Your task to perform on an android device: Go to Wikipedia Image 0: 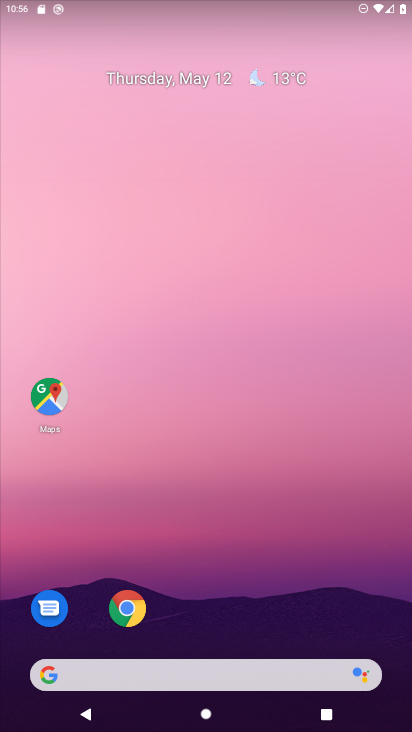
Step 0: click (138, 609)
Your task to perform on an android device: Go to Wikipedia Image 1: 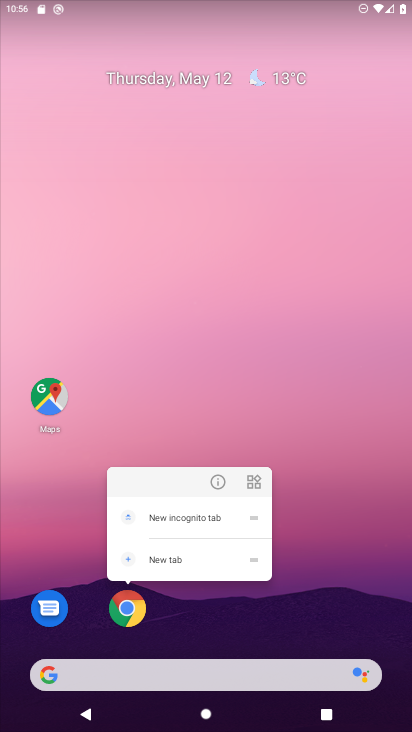
Step 1: click (133, 609)
Your task to perform on an android device: Go to Wikipedia Image 2: 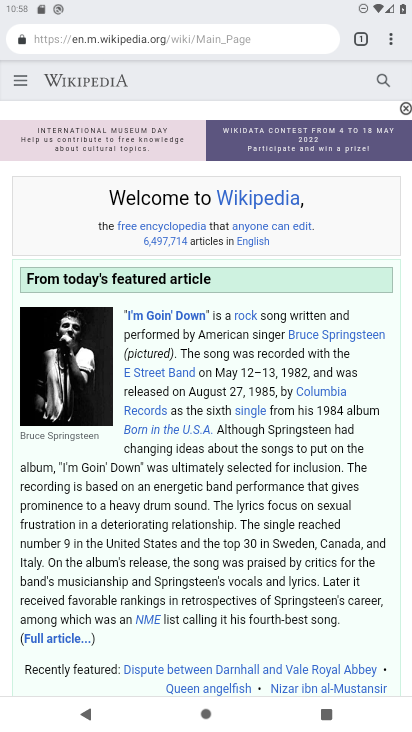
Step 2: task complete